Your task to perform on an android device: Do I have any events today? Image 0: 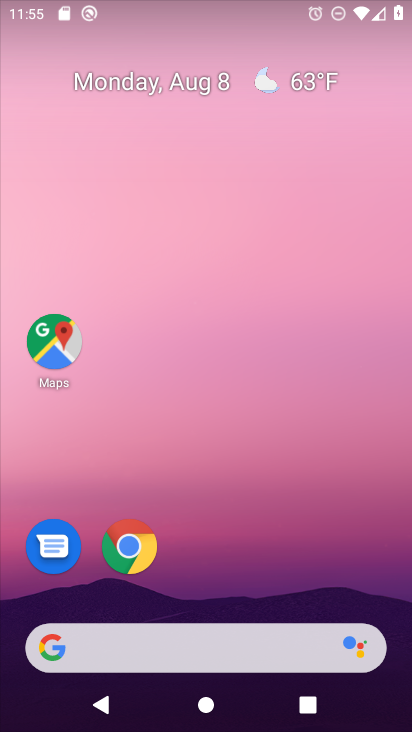
Step 0: press home button
Your task to perform on an android device: Do I have any events today? Image 1: 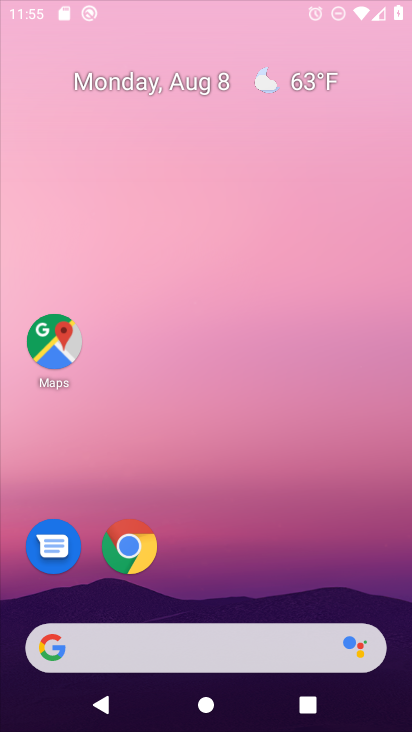
Step 1: drag from (210, 601) to (223, 5)
Your task to perform on an android device: Do I have any events today? Image 2: 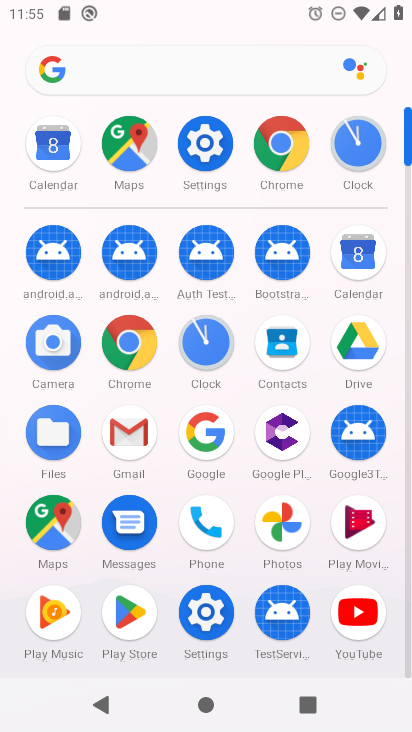
Step 2: click (357, 245)
Your task to perform on an android device: Do I have any events today? Image 3: 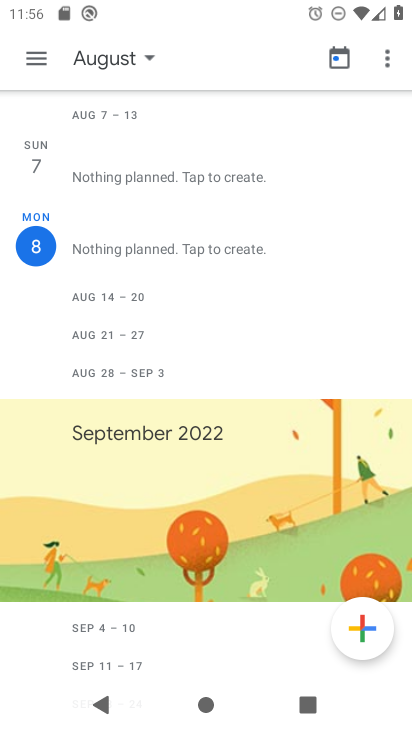
Step 3: click (38, 243)
Your task to perform on an android device: Do I have any events today? Image 4: 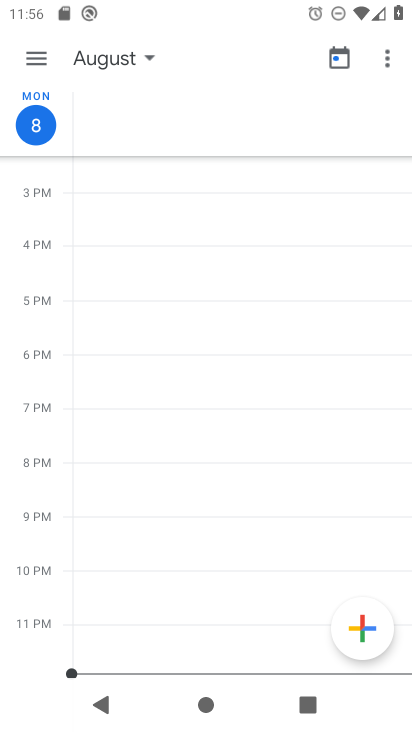
Step 4: task complete